Your task to perform on an android device: turn off picture-in-picture Image 0: 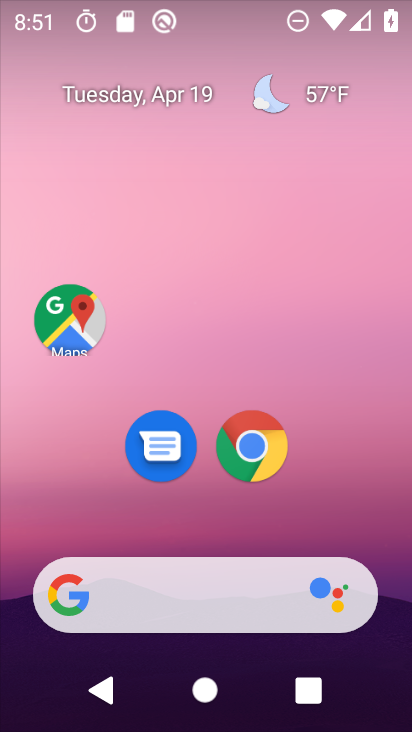
Step 0: drag from (301, 493) to (251, 49)
Your task to perform on an android device: turn off picture-in-picture Image 1: 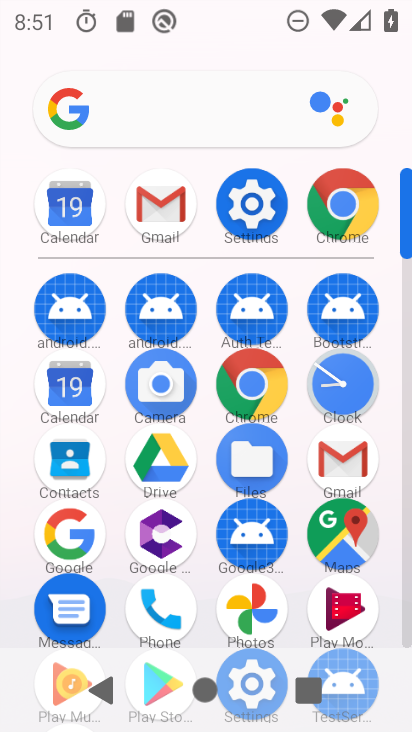
Step 1: click (267, 201)
Your task to perform on an android device: turn off picture-in-picture Image 2: 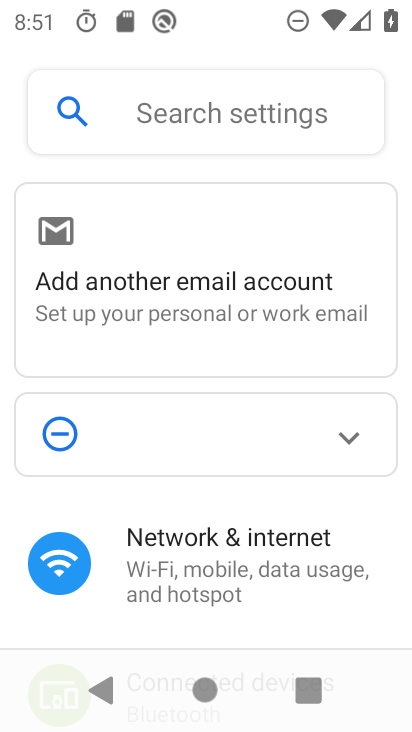
Step 2: drag from (226, 547) to (248, 205)
Your task to perform on an android device: turn off picture-in-picture Image 3: 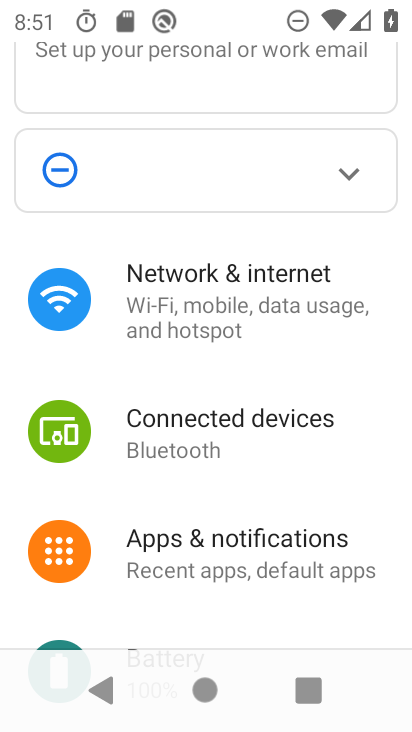
Step 3: click (208, 538)
Your task to perform on an android device: turn off picture-in-picture Image 4: 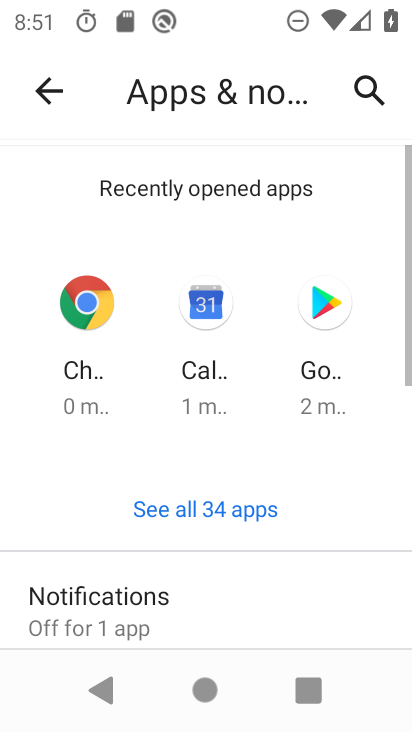
Step 4: drag from (184, 609) to (200, 192)
Your task to perform on an android device: turn off picture-in-picture Image 5: 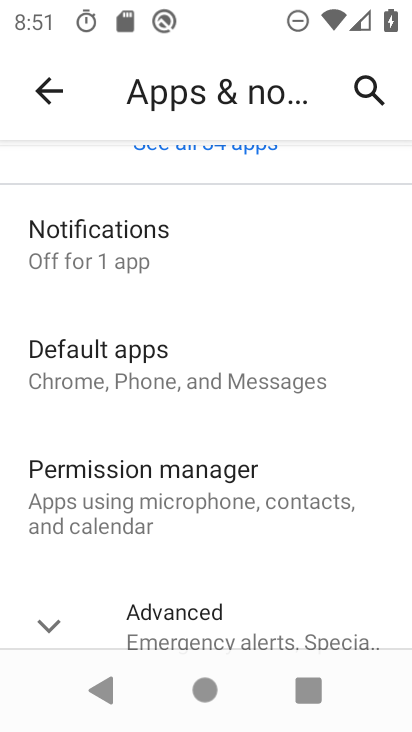
Step 5: click (200, 630)
Your task to perform on an android device: turn off picture-in-picture Image 6: 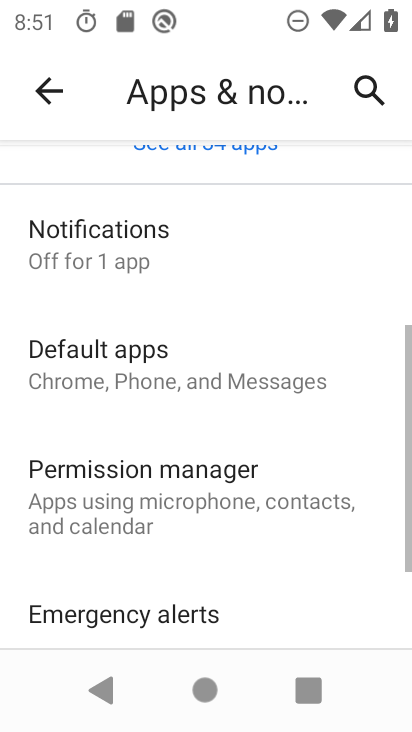
Step 6: drag from (200, 588) to (158, 214)
Your task to perform on an android device: turn off picture-in-picture Image 7: 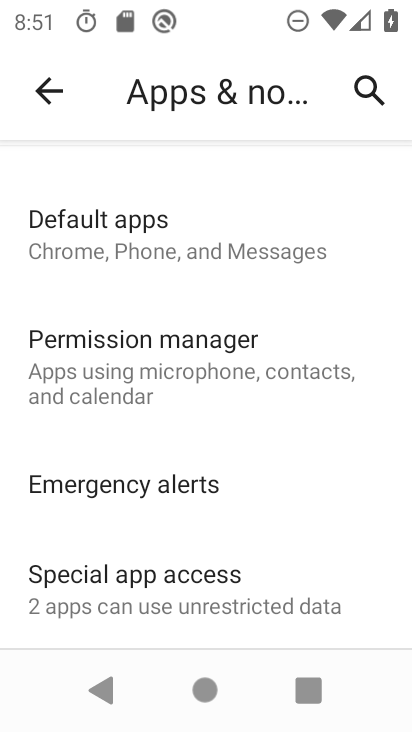
Step 7: click (160, 588)
Your task to perform on an android device: turn off picture-in-picture Image 8: 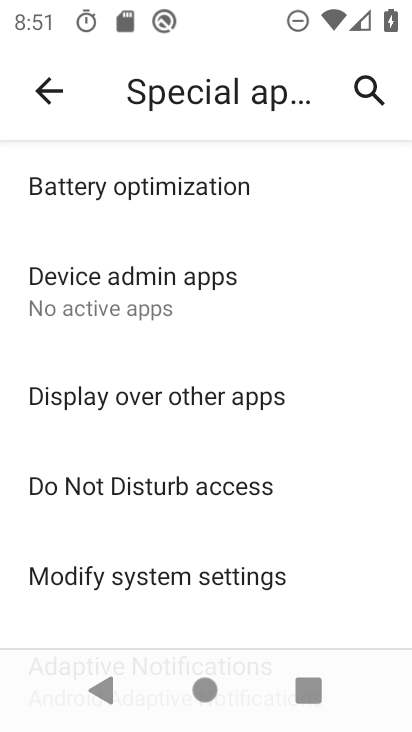
Step 8: drag from (160, 588) to (165, 216)
Your task to perform on an android device: turn off picture-in-picture Image 9: 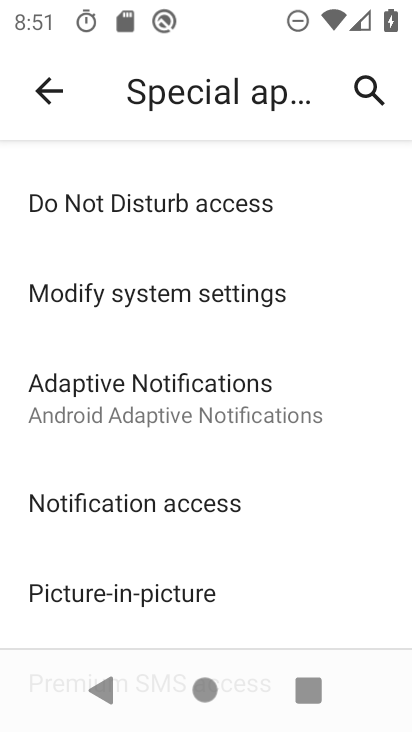
Step 9: click (129, 592)
Your task to perform on an android device: turn off picture-in-picture Image 10: 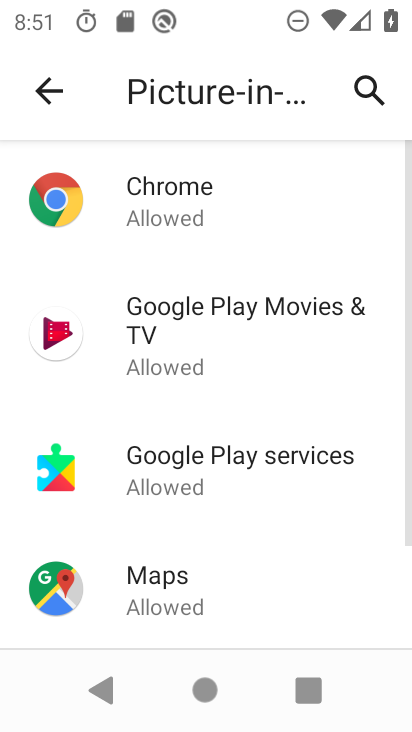
Step 10: click (215, 216)
Your task to perform on an android device: turn off picture-in-picture Image 11: 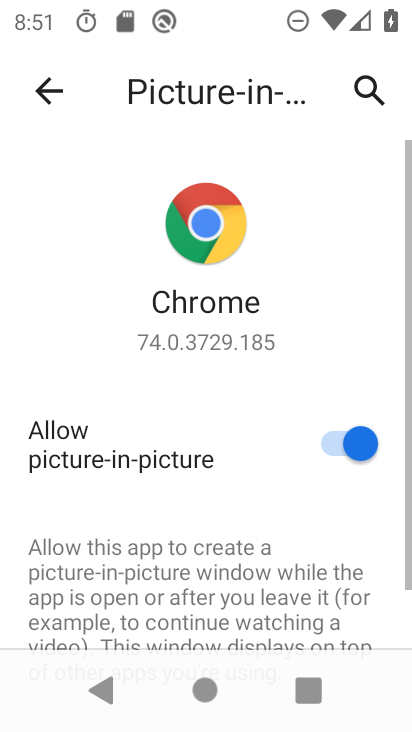
Step 11: click (365, 434)
Your task to perform on an android device: turn off picture-in-picture Image 12: 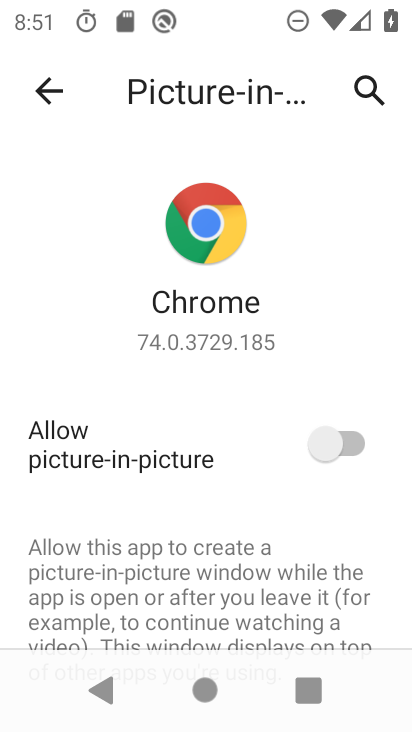
Step 12: task complete